Your task to perform on an android device: Find coffee shops on Maps Image 0: 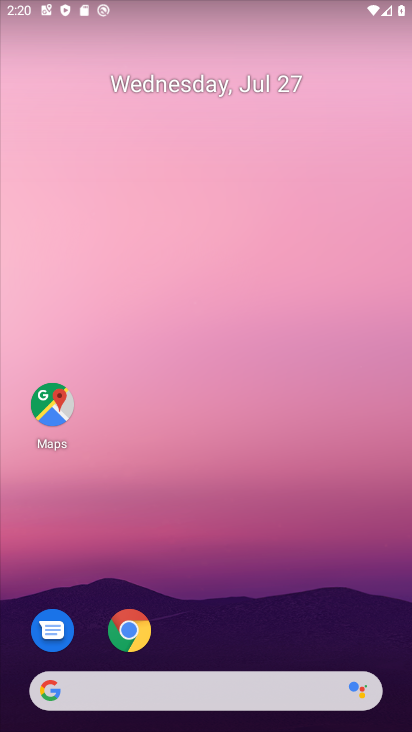
Step 0: click (59, 394)
Your task to perform on an android device: Find coffee shops on Maps Image 1: 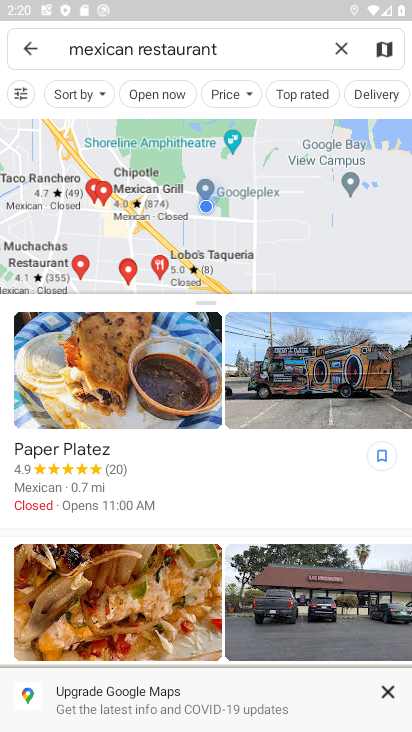
Step 1: click (338, 46)
Your task to perform on an android device: Find coffee shops on Maps Image 2: 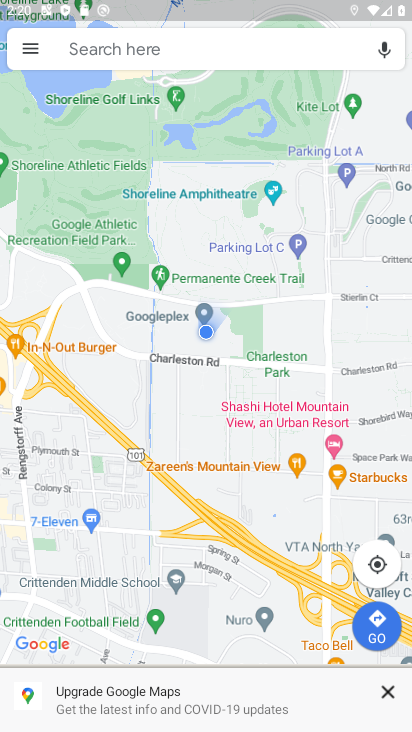
Step 2: click (257, 51)
Your task to perform on an android device: Find coffee shops on Maps Image 3: 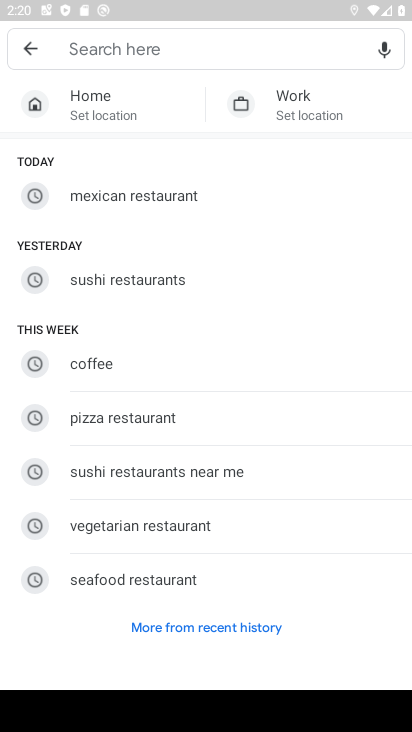
Step 3: type "coffee shops"
Your task to perform on an android device: Find coffee shops on Maps Image 4: 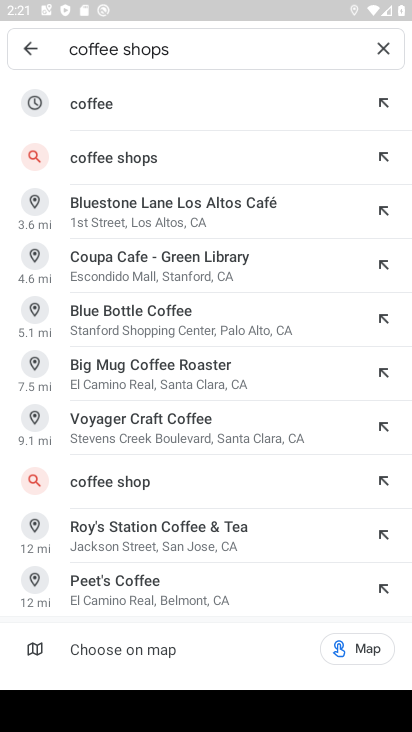
Step 4: click (132, 157)
Your task to perform on an android device: Find coffee shops on Maps Image 5: 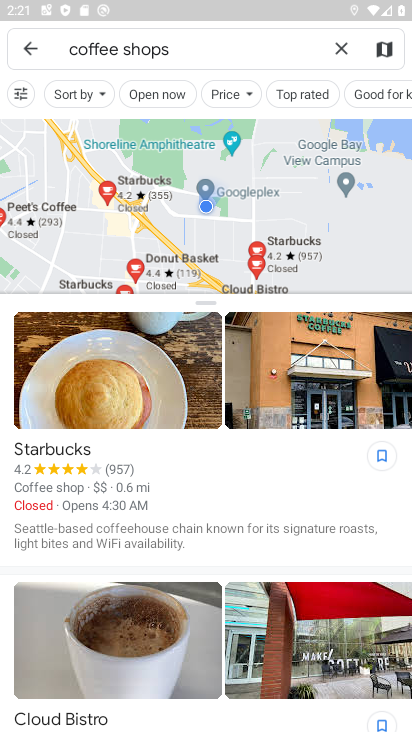
Step 5: task complete